Your task to perform on an android device: Open battery settings Image 0: 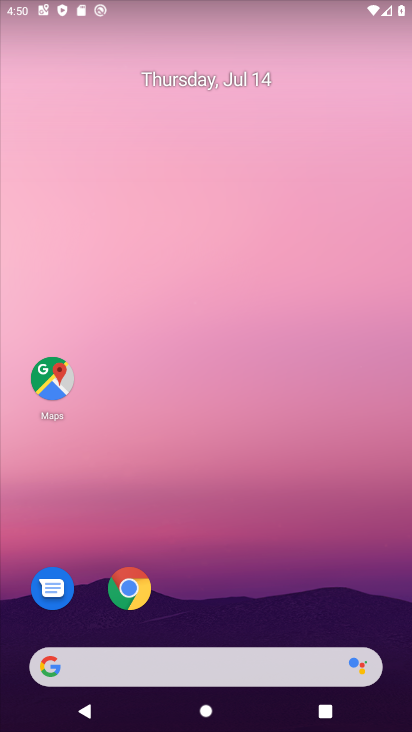
Step 0: drag from (218, 647) to (250, 228)
Your task to perform on an android device: Open battery settings Image 1: 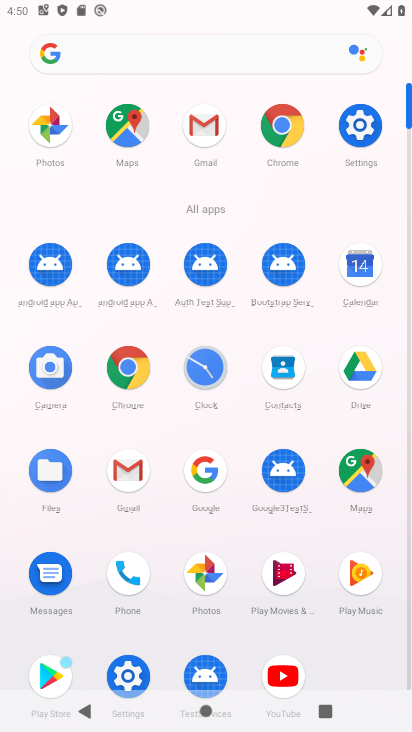
Step 1: click (372, 129)
Your task to perform on an android device: Open battery settings Image 2: 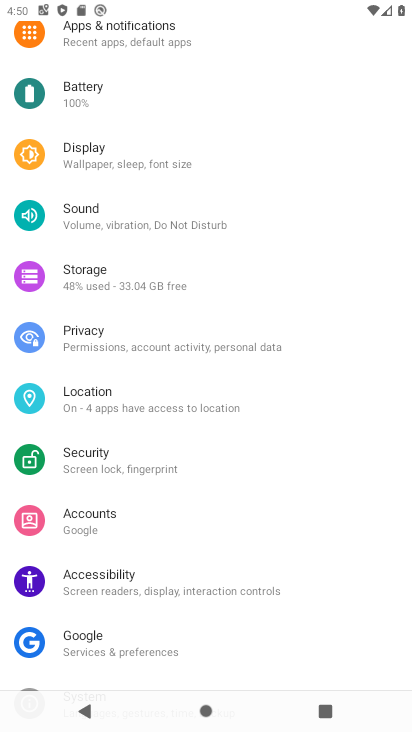
Step 2: click (84, 82)
Your task to perform on an android device: Open battery settings Image 3: 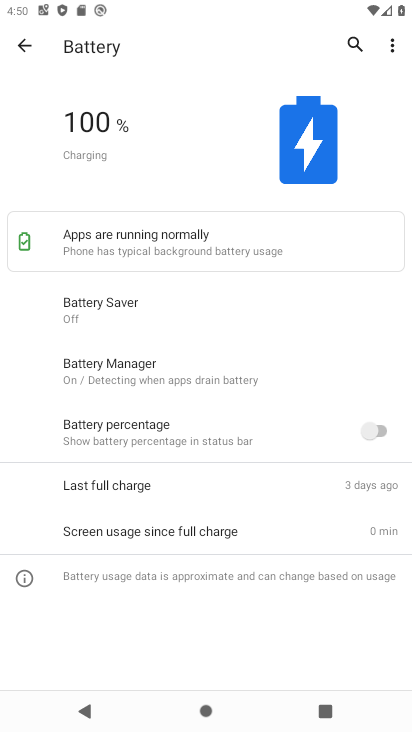
Step 3: click (398, 47)
Your task to perform on an android device: Open battery settings Image 4: 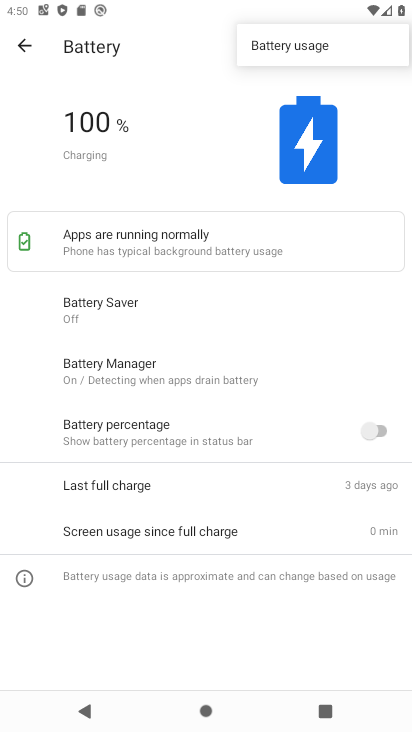
Step 4: click (296, 49)
Your task to perform on an android device: Open battery settings Image 5: 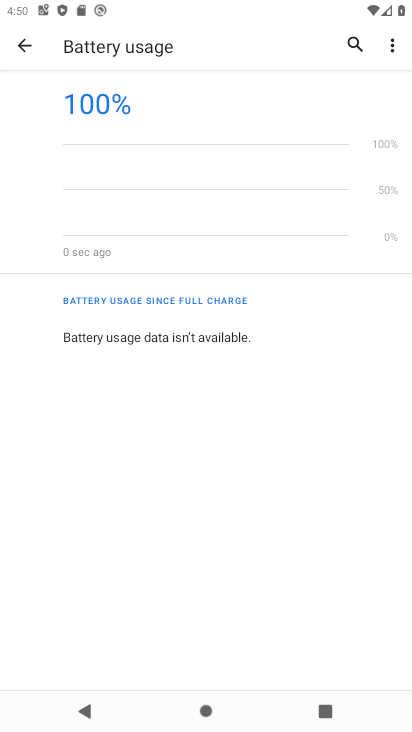
Step 5: task complete